Your task to perform on an android device: turn off data saver in the chrome app Image 0: 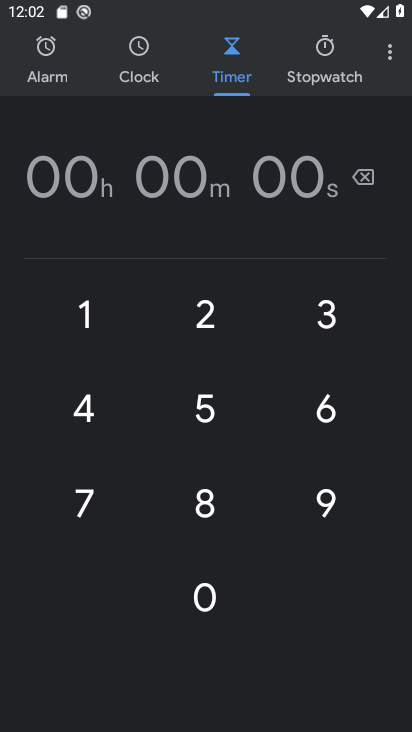
Step 0: click (183, 308)
Your task to perform on an android device: turn off data saver in the chrome app Image 1: 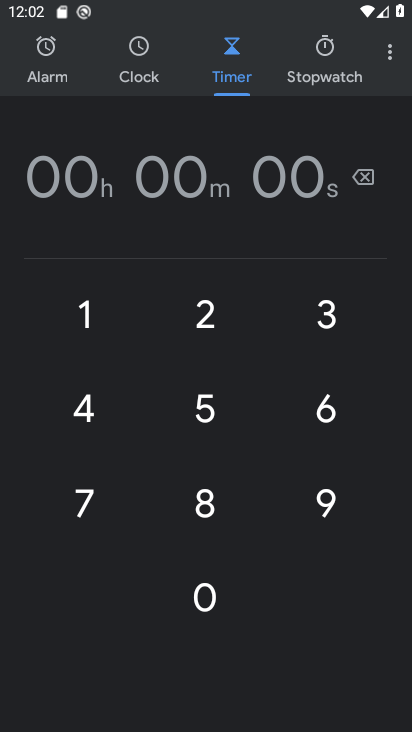
Step 1: click (323, 339)
Your task to perform on an android device: turn off data saver in the chrome app Image 2: 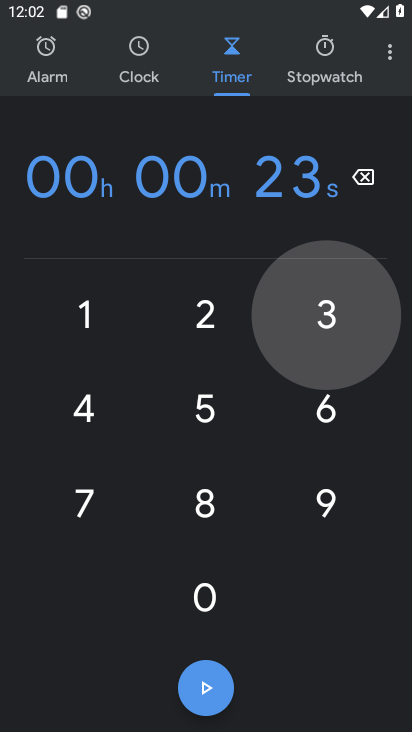
Step 2: click (249, 404)
Your task to perform on an android device: turn off data saver in the chrome app Image 3: 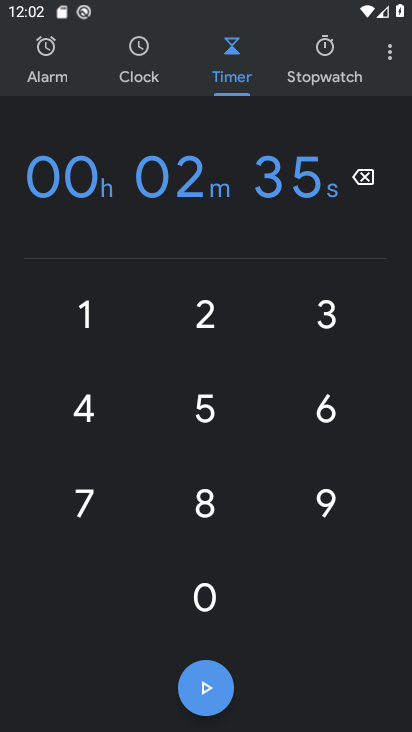
Step 3: press home button
Your task to perform on an android device: turn off data saver in the chrome app Image 4: 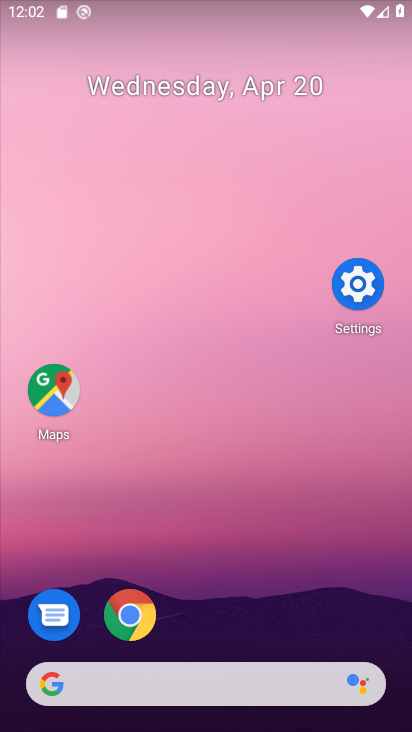
Step 4: click (133, 621)
Your task to perform on an android device: turn off data saver in the chrome app Image 5: 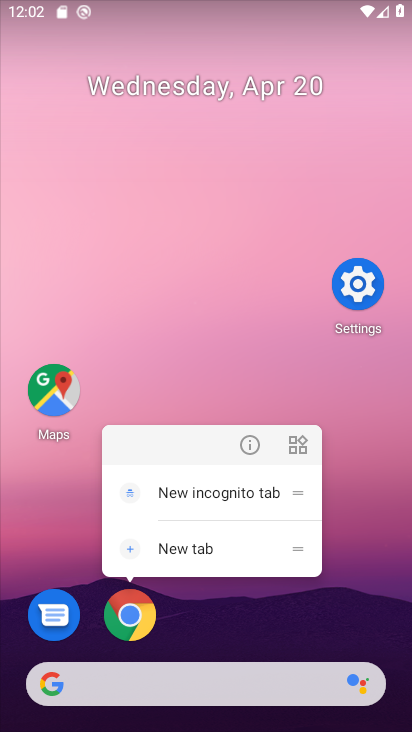
Step 5: click (256, 453)
Your task to perform on an android device: turn off data saver in the chrome app Image 6: 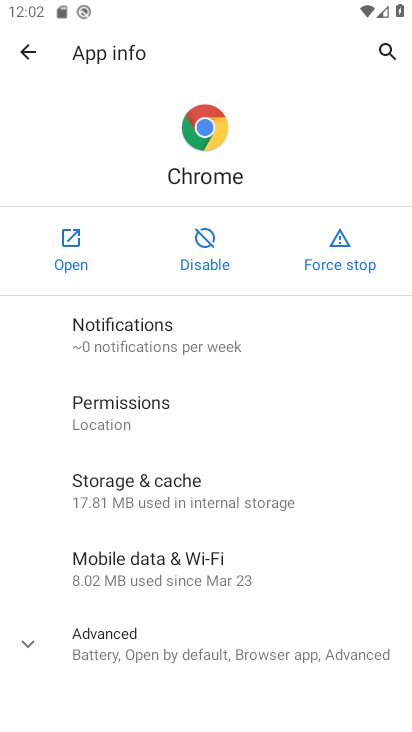
Step 6: click (63, 235)
Your task to perform on an android device: turn off data saver in the chrome app Image 7: 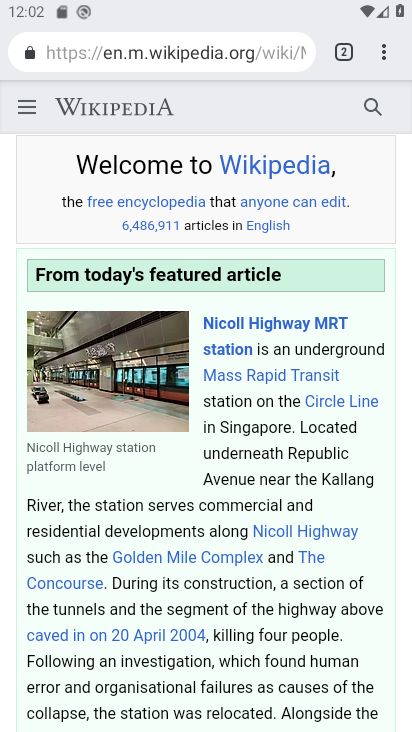
Step 7: drag from (256, 628) to (322, 433)
Your task to perform on an android device: turn off data saver in the chrome app Image 8: 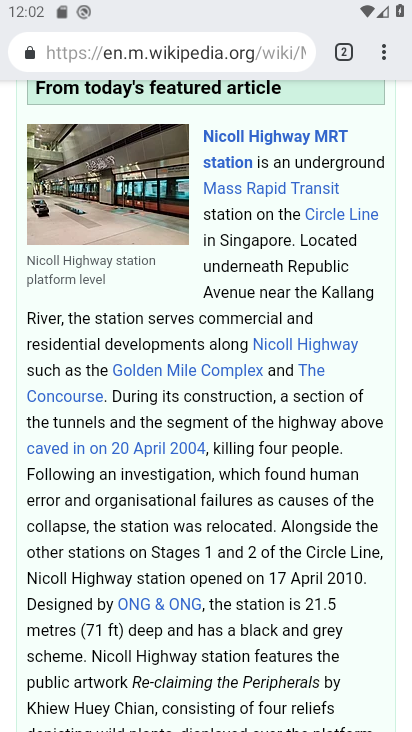
Step 8: drag from (248, 449) to (284, 335)
Your task to perform on an android device: turn off data saver in the chrome app Image 9: 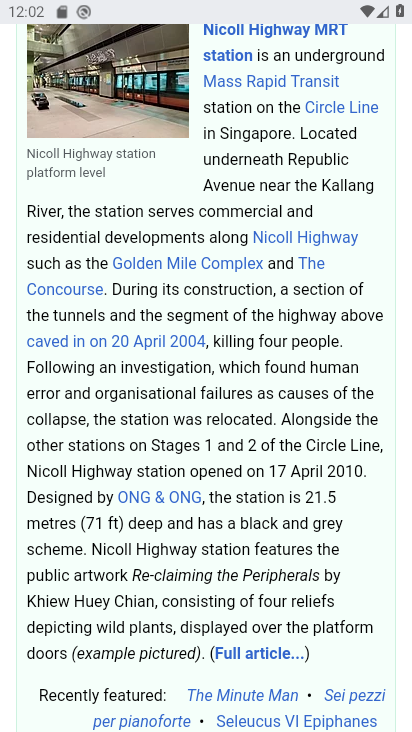
Step 9: drag from (281, 565) to (313, 188)
Your task to perform on an android device: turn off data saver in the chrome app Image 10: 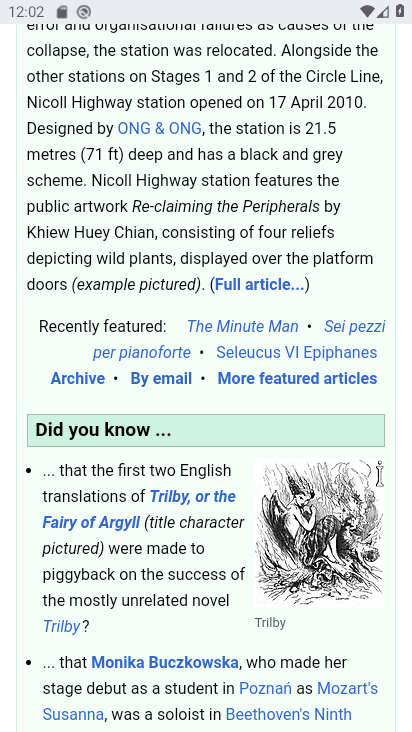
Step 10: drag from (302, 155) to (315, 730)
Your task to perform on an android device: turn off data saver in the chrome app Image 11: 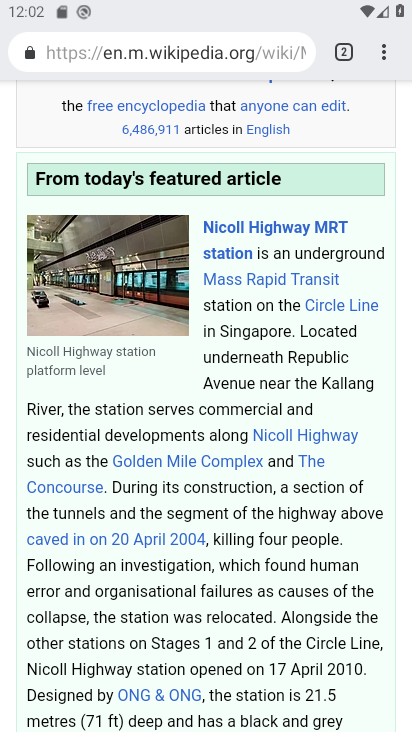
Step 11: click (378, 55)
Your task to perform on an android device: turn off data saver in the chrome app Image 12: 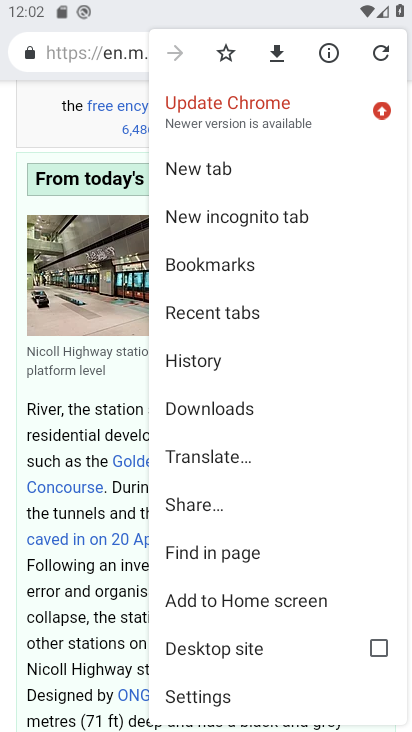
Step 12: drag from (241, 633) to (300, 184)
Your task to perform on an android device: turn off data saver in the chrome app Image 13: 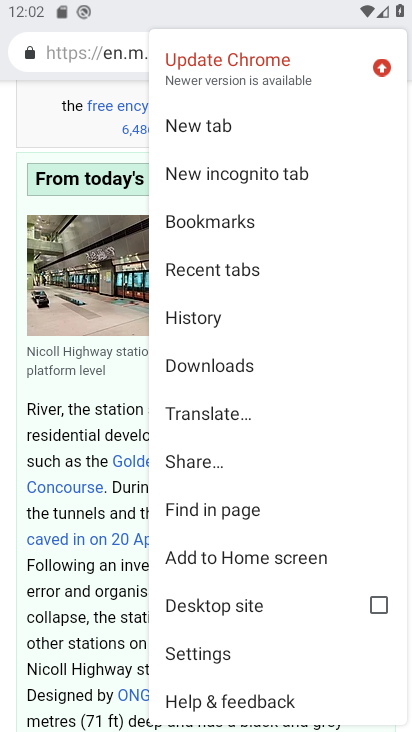
Step 13: click (227, 657)
Your task to perform on an android device: turn off data saver in the chrome app Image 14: 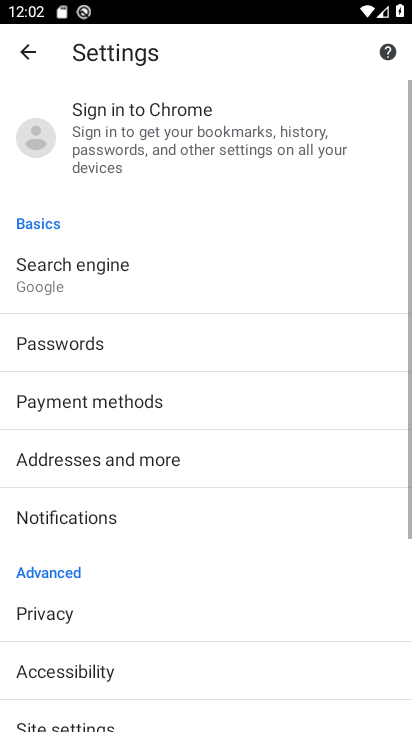
Step 14: drag from (138, 619) to (386, 124)
Your task to perform on an android device: turn off data saver in the chrome app Image 15: 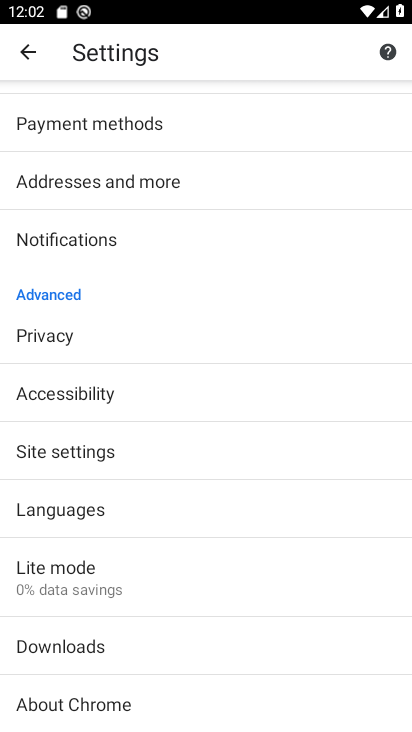
Step 15: click (109, 557)
Your task to perform on an android device: turn off data saver in the chrome app Image 16: 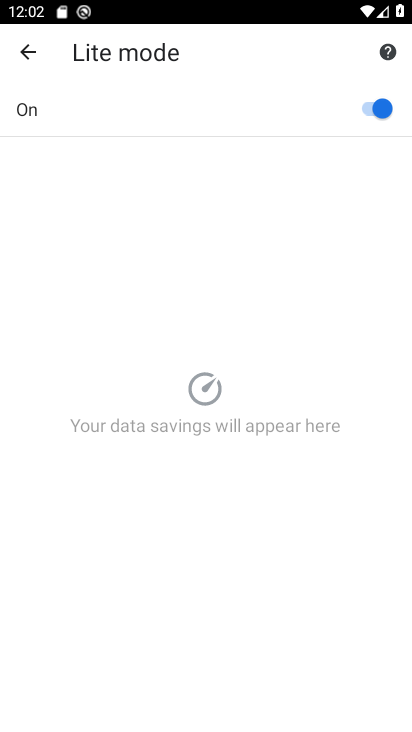
Step 16: click (380, 97)
Your task to perform on an android device: turn off data saver in the chrome app Image 17: 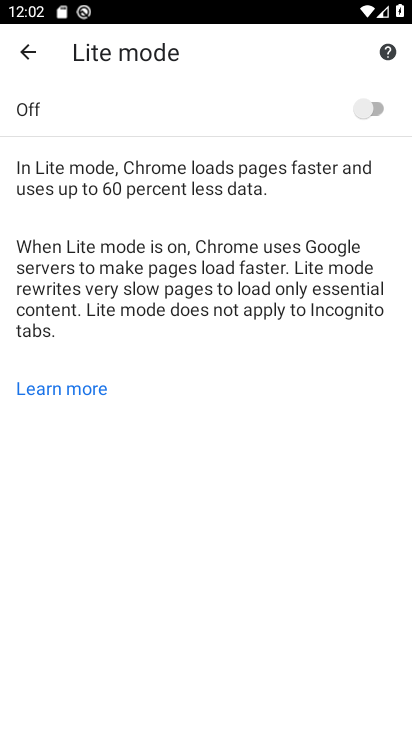
Step 17: task complete